Your task to perform on an android device: open a bookmark in the chrome app Image 0: 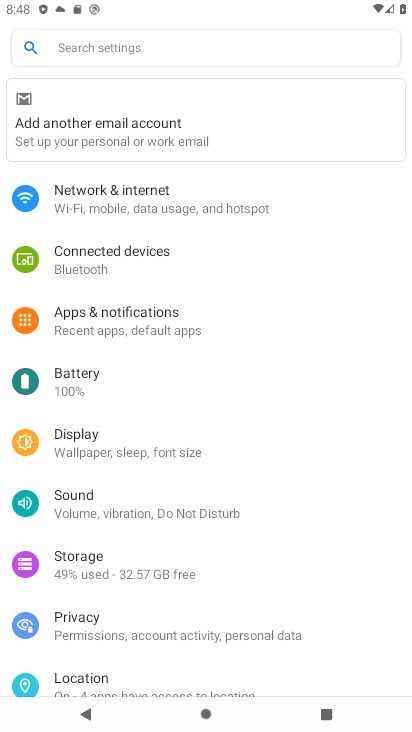
Step 0: press home button
Your task to perform on an android device: open a bookmark in the chrome app Image 1: 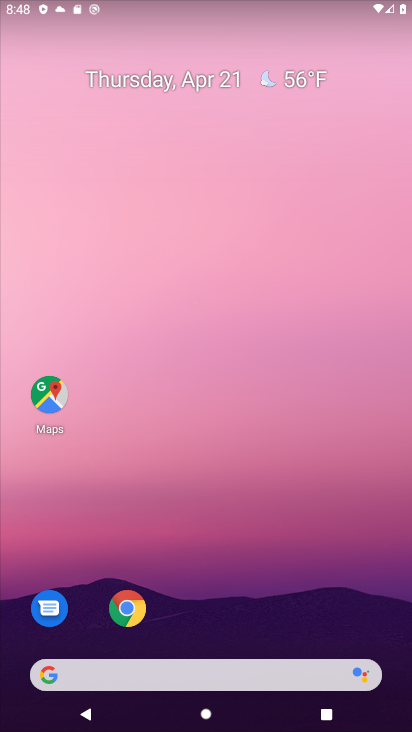
Step 1: click (127, 607)
Your task to perform on an android device: open a bookmark in the chrome app Image 2: 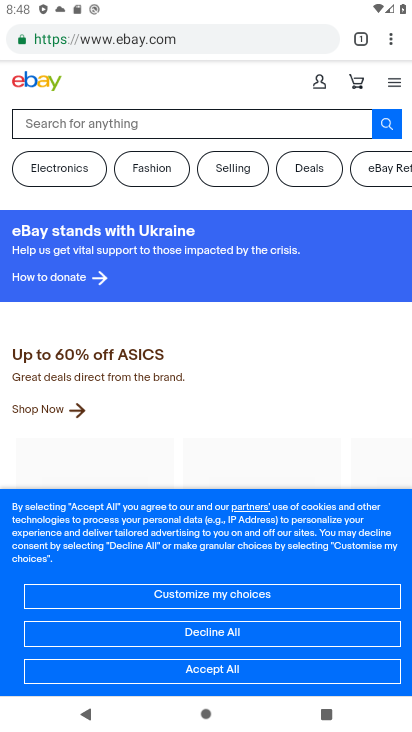
Step 2: click (389, 34)
Your task to perform on an android device: open a bookmark in the chrome app Image 3: 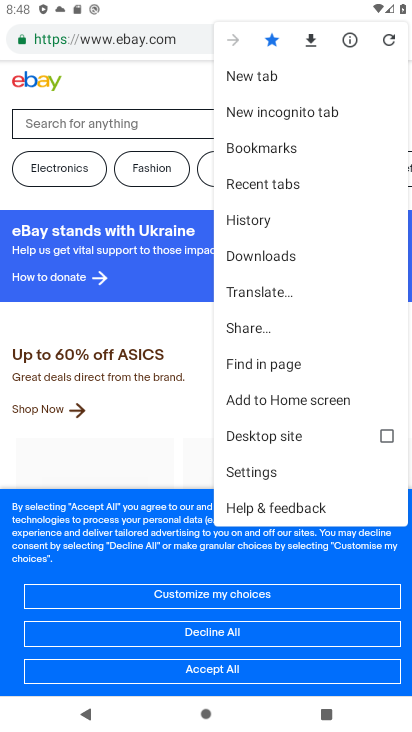
Step 3: click (305, 145)
Your task to perform on an android device: open a bookmark in the chrome app Image 4: 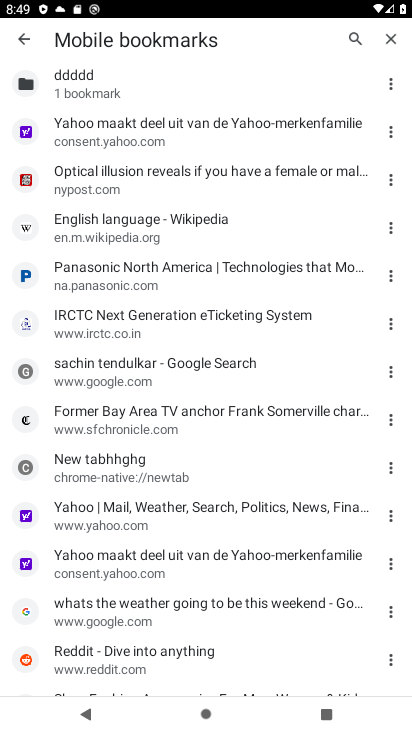
Step 4: click (292, 170)
Your task to perform on an android device: open a bookmark in the chrome app Image 5: 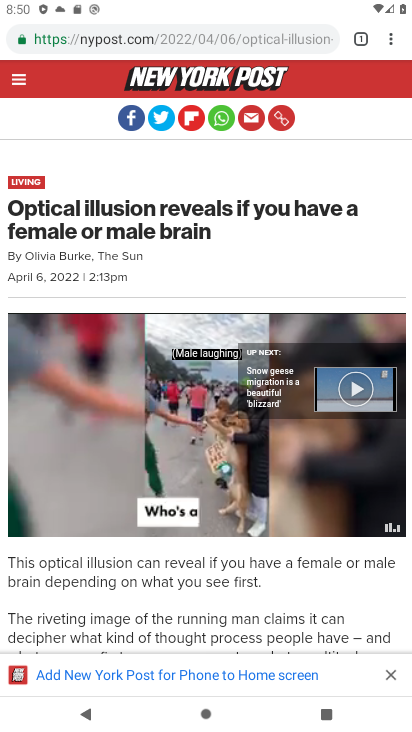
Step 5: task complete